Your task to perform on an android device: Open Maps and search for coffee Image 0: 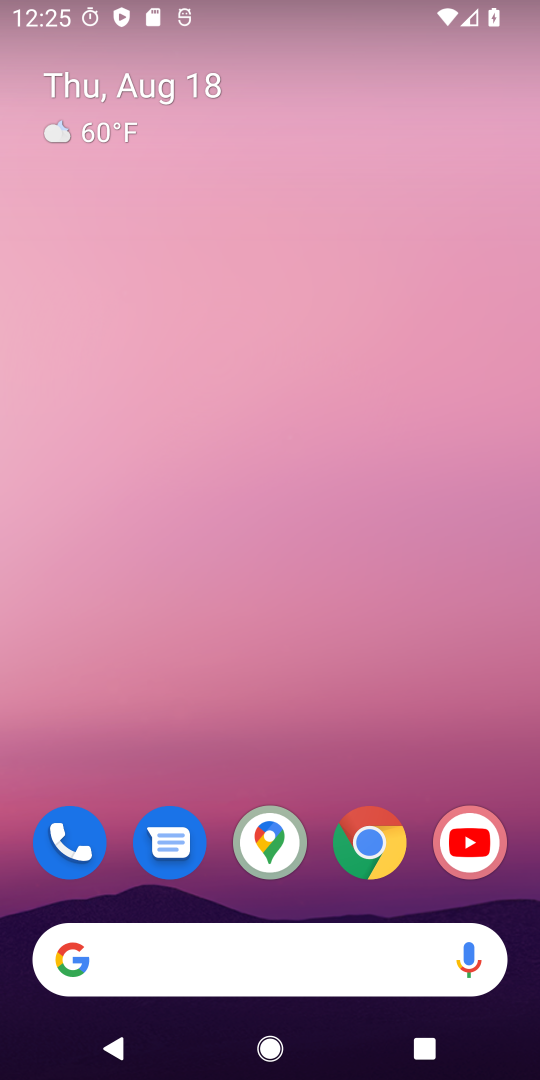
Step 0: click (270, 846)
Your task to perform on an android device: Open Maps and search for coffee Image 1: 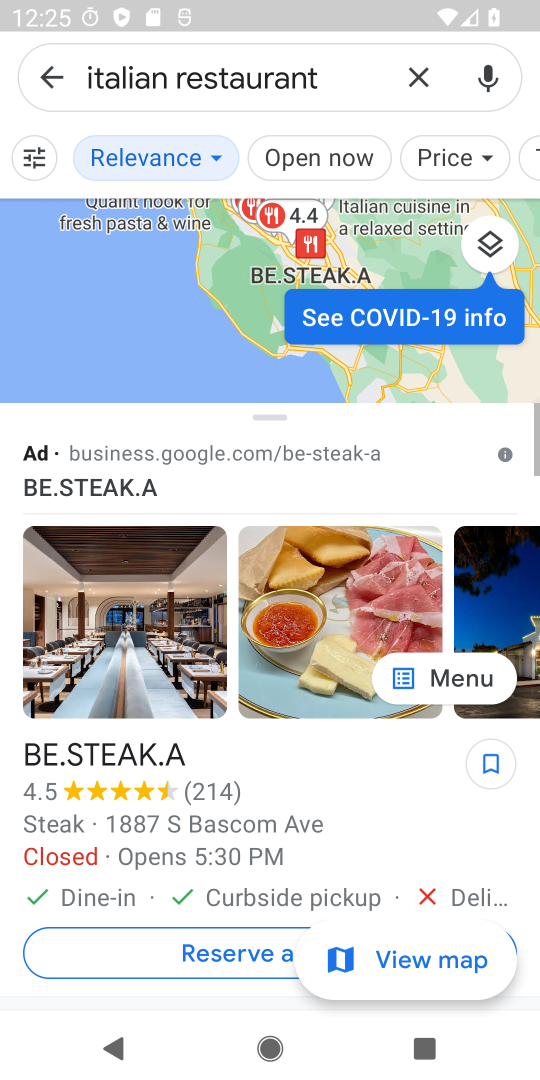
Step 1: click (421, 86)
Your task to perform on an android device: Open Maps and search for coffee Image 2: 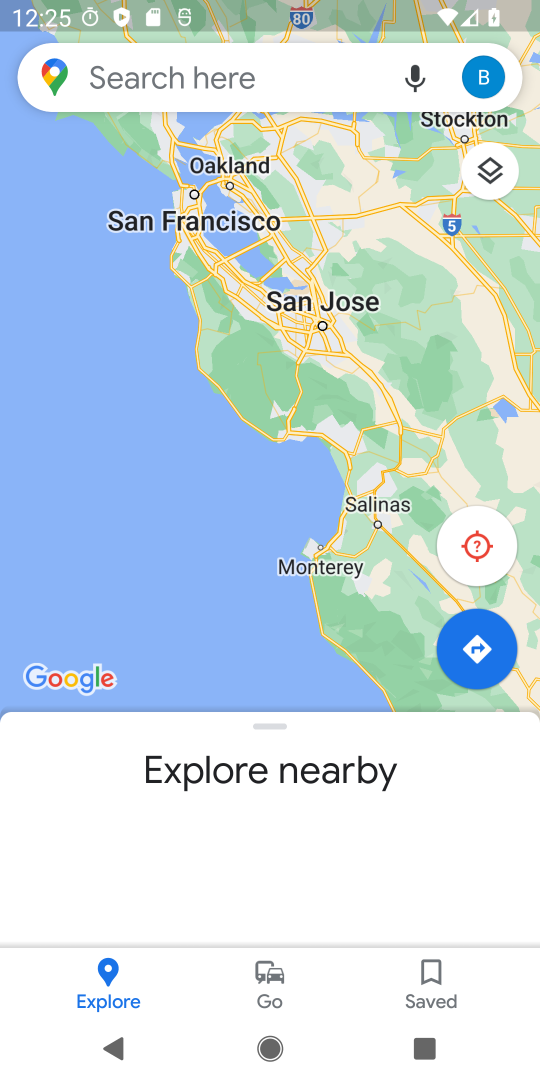
Step 2: click (343, 66)
Your task to perform on an android device: Open Maps and search for coffee Image 3: 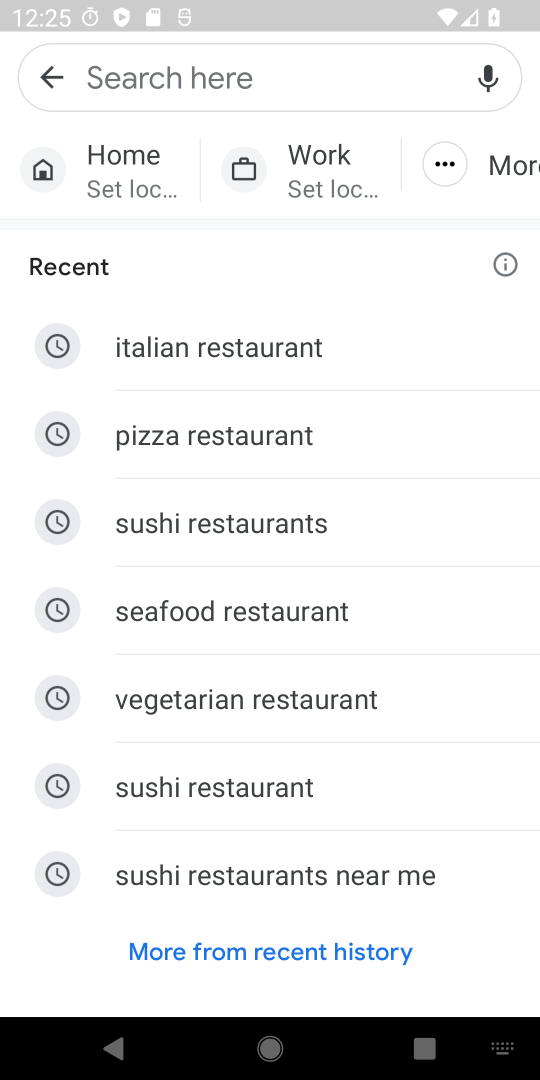
Step 3: type "coffee"
Your task to perform on an android device: Open Maps and search for coffee Image 4: 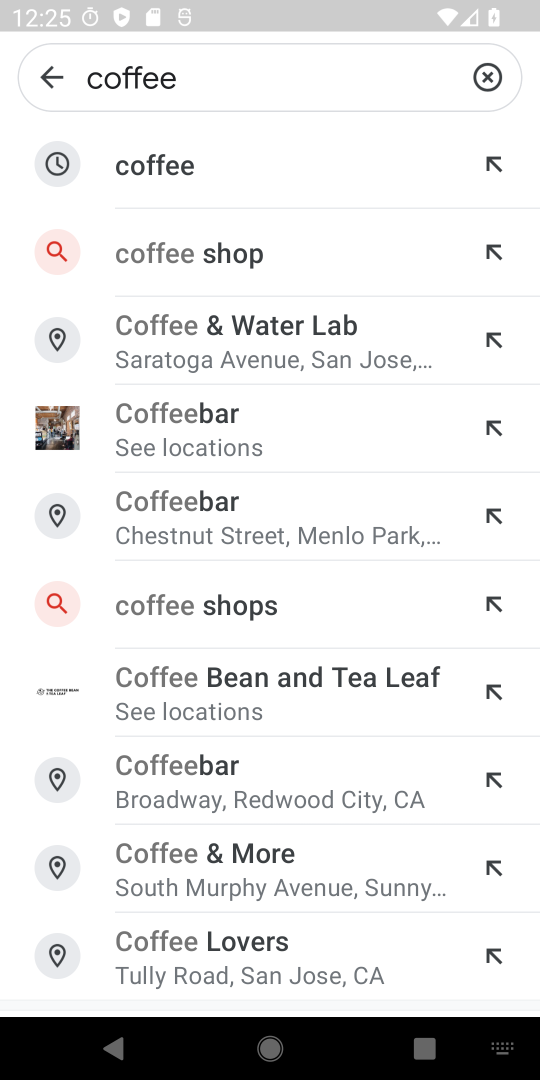
Step 4: click (209, 612)
Your task to perform on an android device: Open Maps and search for coffee Image 5: 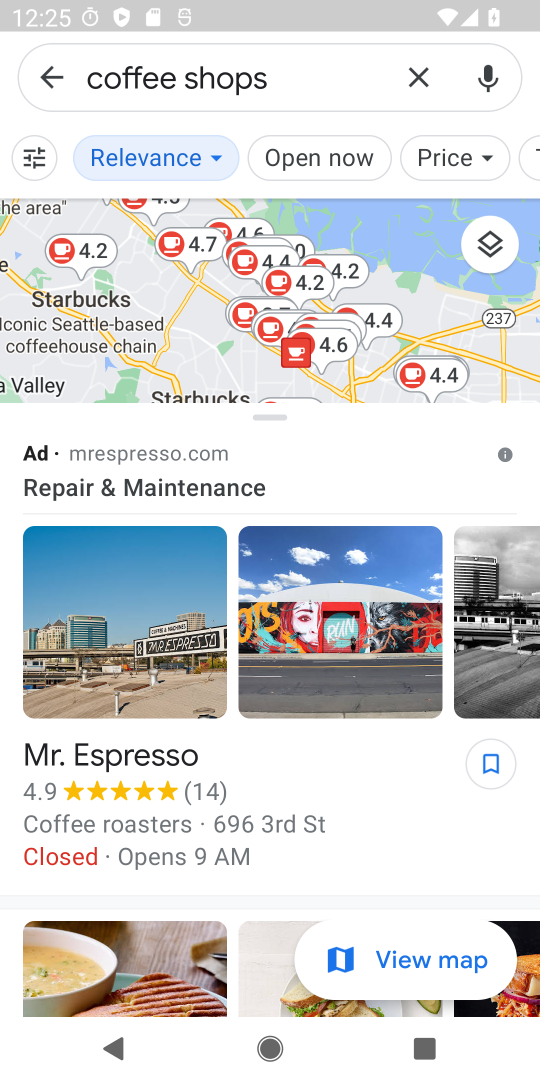
Step 5: task complete